Your task to perform on an android device: turn off sleep mode Image 0: 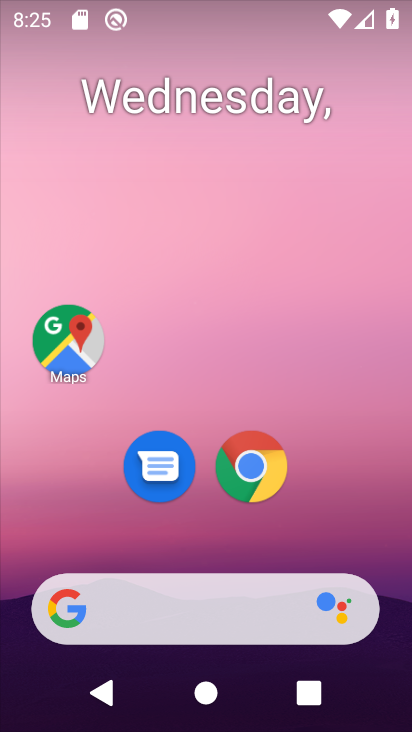
Step 0: press home button
Your task to perform on an android device: turn off sleep mode Image 1: 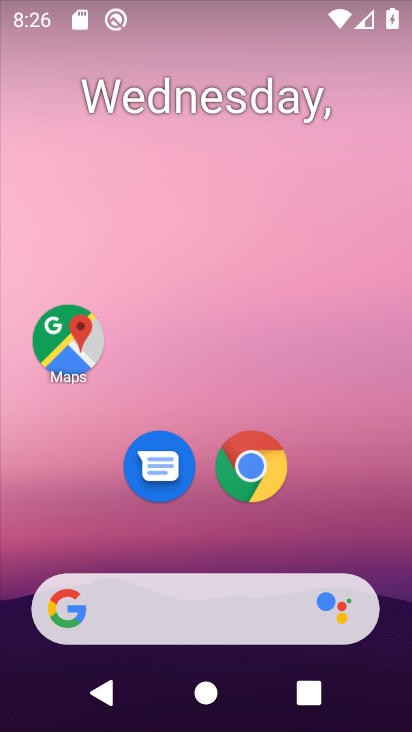
Step 1: drag from (246, 725) to (237, 196)
Your task to perform on an android device: turn off sleep mode Image 2: 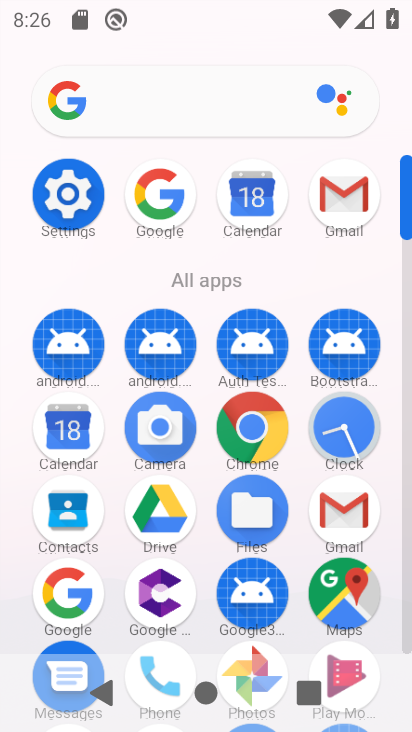
Step 2: click (74, 200)
Your task to perform on an android device: turn off sleep mode Image 3: 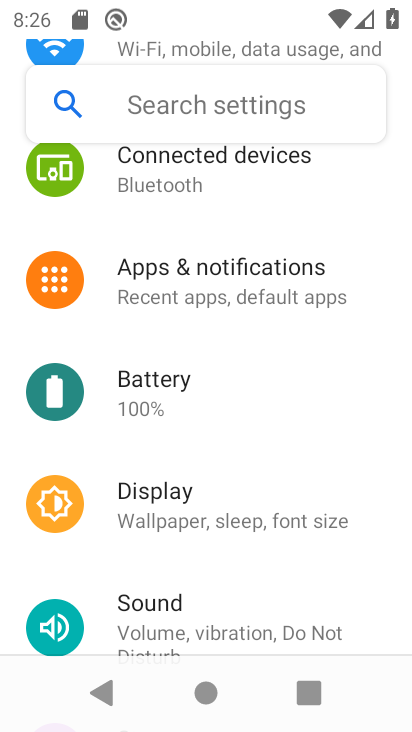
Step 3: task complete